Your task to perform on an android device: open a bookmark in the chrome app Image 0: 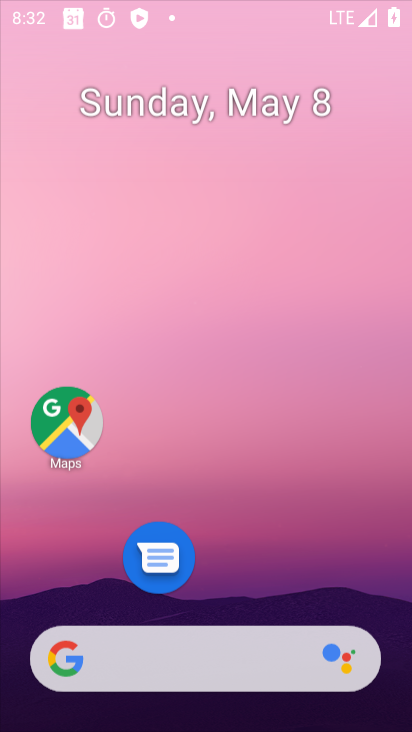
Step 0: drag from (362, 322) to (340, 81)
Your task to perform on an android device: open a bookmark in the chrome app Image 1: 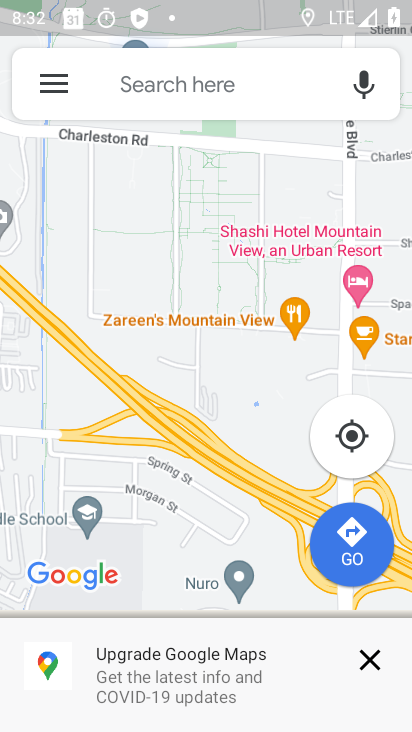
Step 1: press home button
Your task to perform on an android device: open a bookmark in the chrome app Image 2: 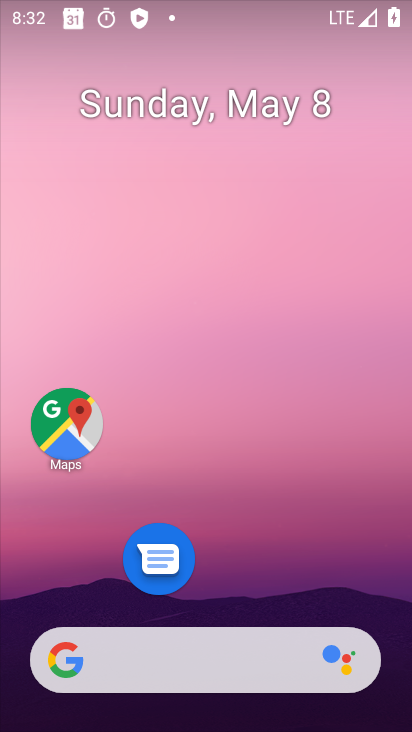
Step 2: drag from (304, 670) to (295, 15)
Your task to perform on an android device: open a bookmark in the chrome app Image 3: 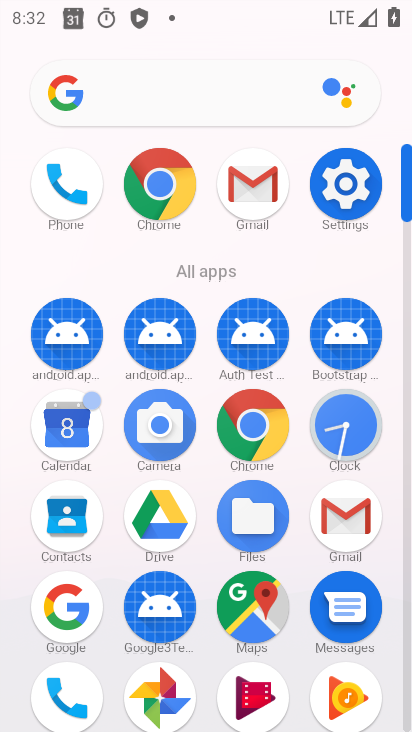
Step 3: click (261, 440)
Your task to perform on an android device: open a bookmark in the chrome app Image 4: 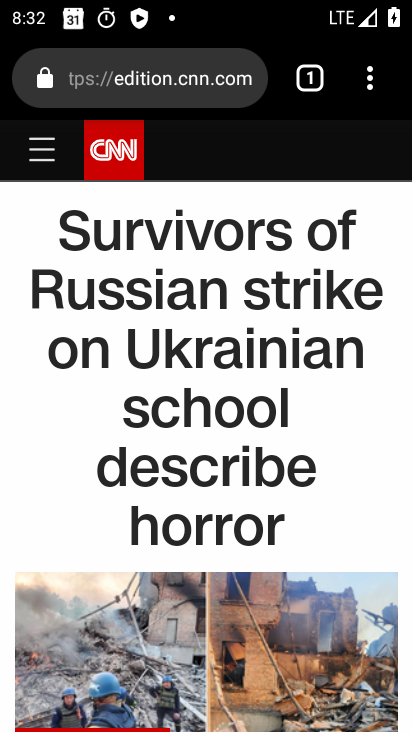
Step 4: task complete